Your task to perform on an android device: What is the news today? Image 0: 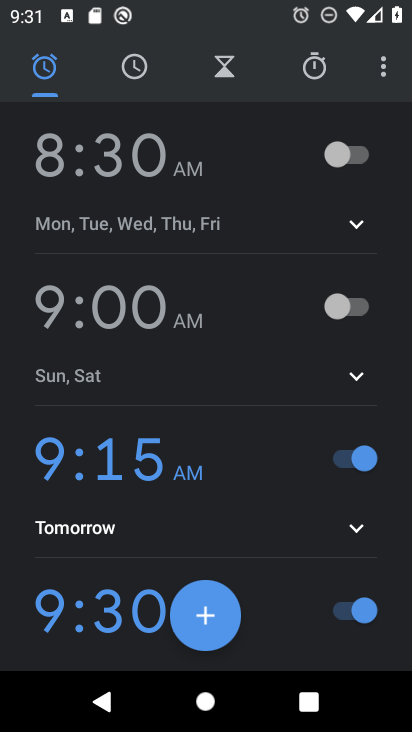
Step 0: press home button
Your task to perform on an android device: What is the news today? Image 1: 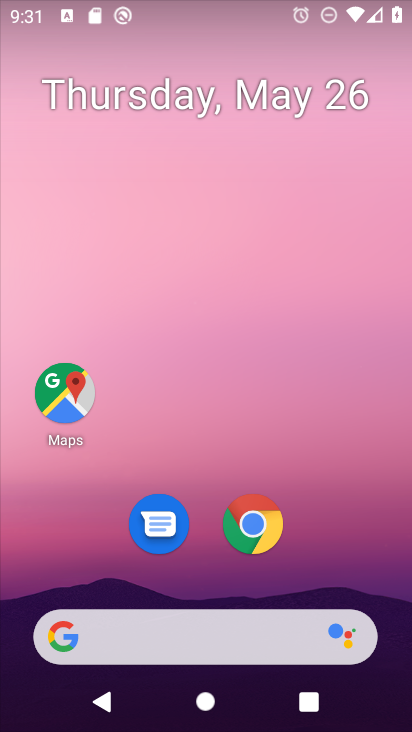
Step 1: click (220, 620)
Your task to perform on an android device: What is the news today? Image 2: 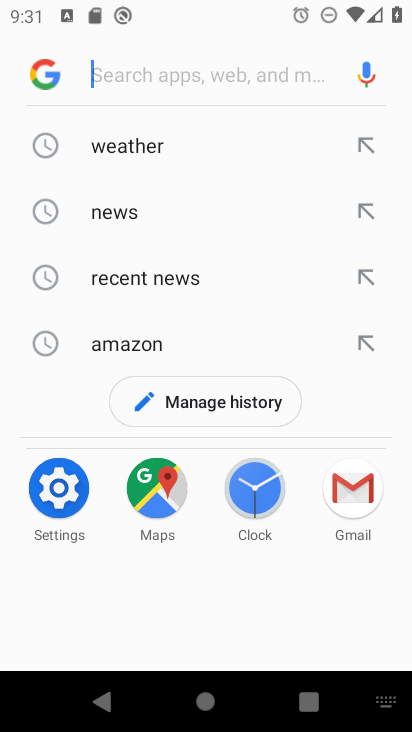
Step 2: click (111, 212)
Your task to perform on an android device: What is the news today? Image 3: 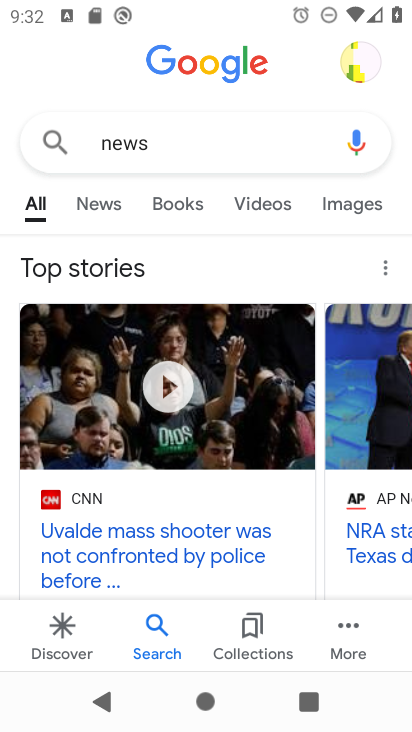
Step 3: click (107, 198)
Your task to perform on an android device: What is the news today? Image 4: 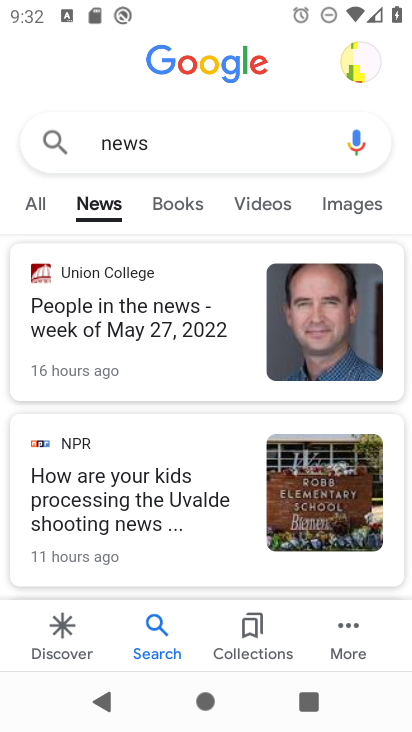
Step 4: task complete